Your task to perform on an android device: Search for "dell xps" on amazon.com, select the first entry, and add it to the cart. Image 0: 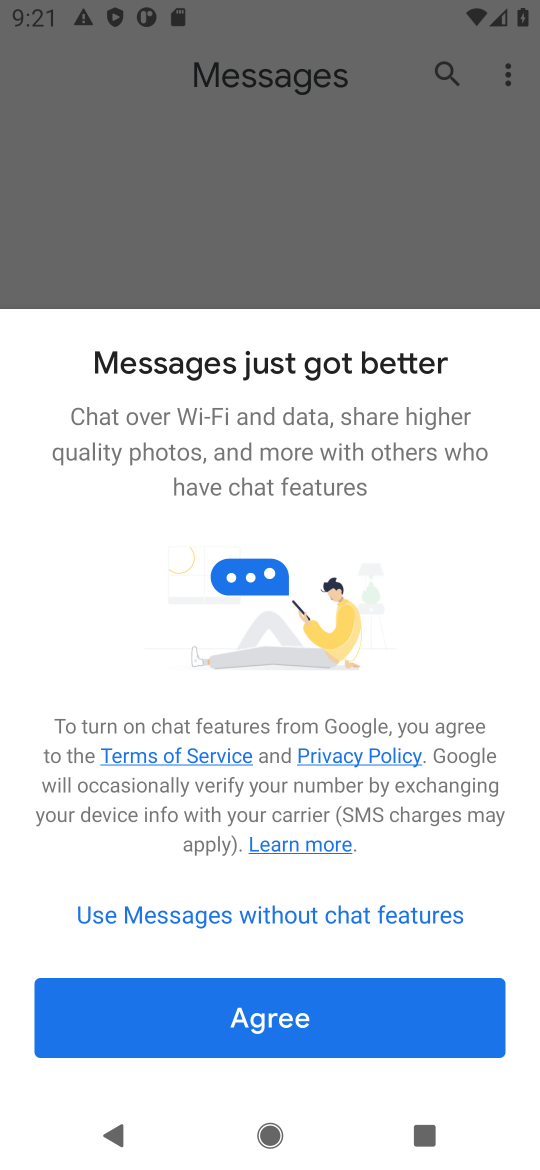
Step 0: press home button
Your task to perform on an android device: Search for "dell xps" on amazon.com, select the first entry, and add it to the cart. Image 1: 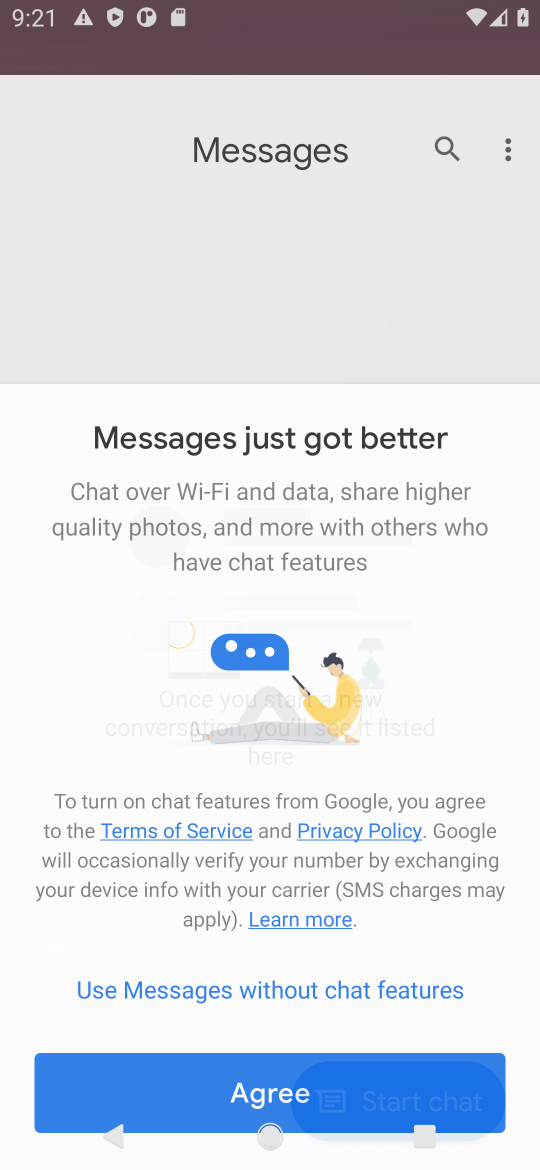
Step 1: press home button
Your task to perform on an android device: Search for "dell xps" on amazon.com, select the first entry, and add it to the cart. Image 2: 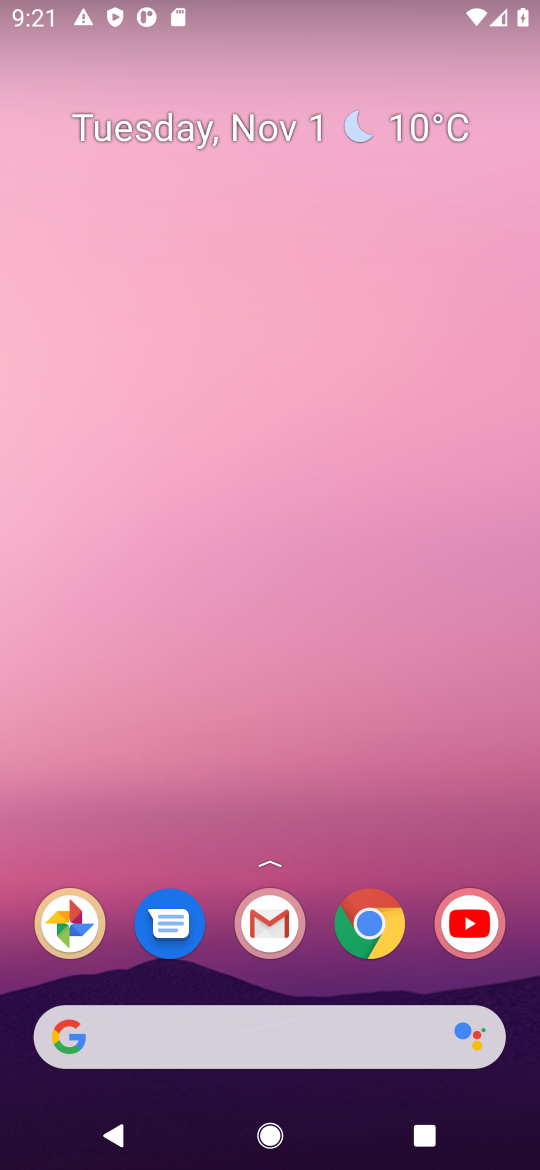
Step 2: drag from (301, 807) to (228, 33)
Your task to perform on an android device: Search for "dell xps" on amazon.com, select the first entry, and add it to the cart. Image 3: 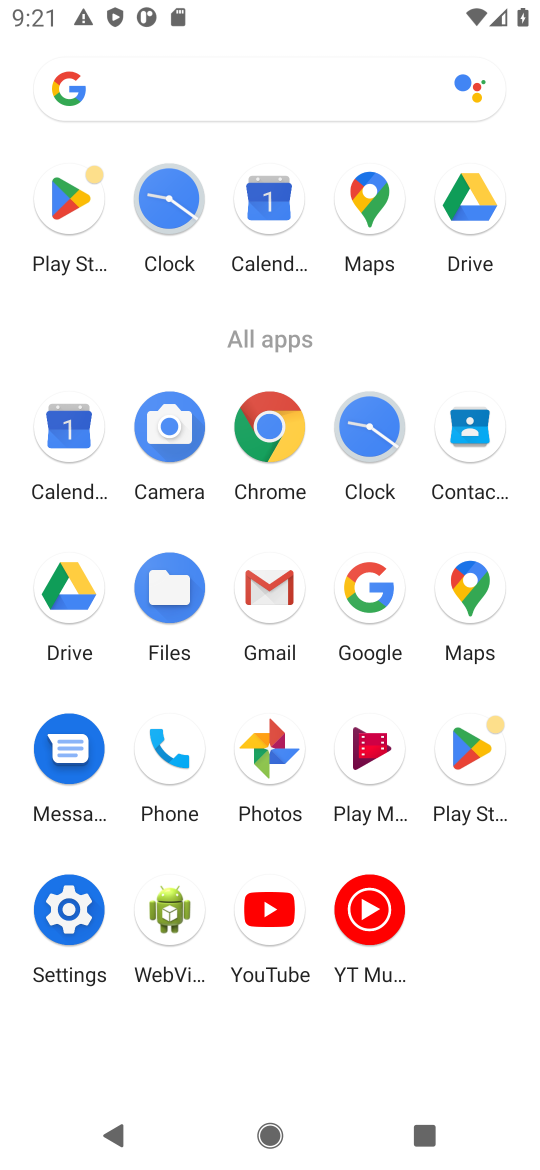
Step 3: click (265, 412)
Your task to perform on an android device: Search for "dell xps" on amazon.com, select the first entry, and add it to the cart. Image 4: 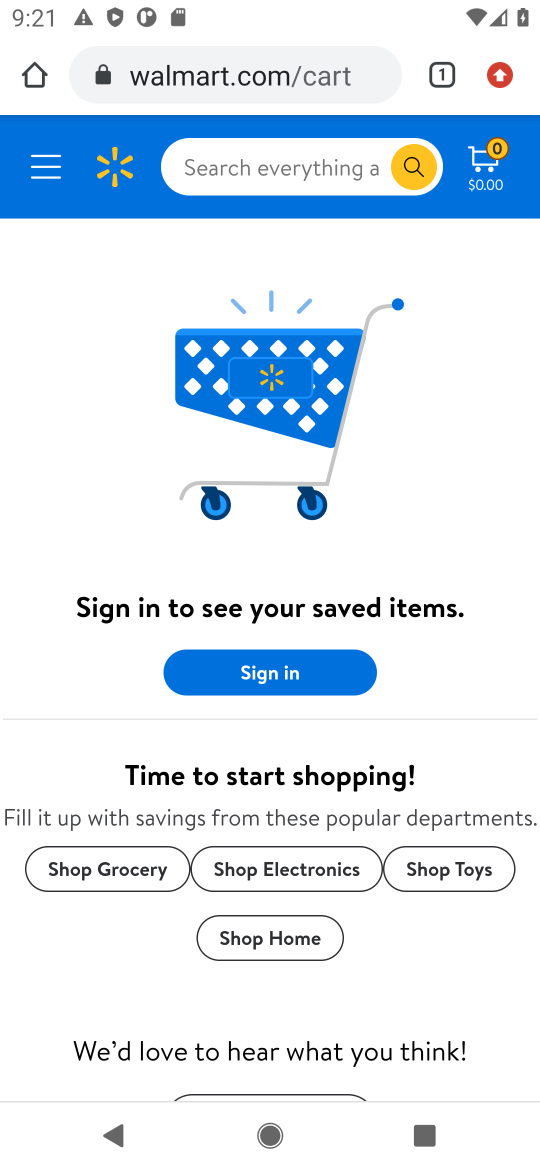
Step 4: click (278, 72)
Your task to perform on an android device: Search for "dell xps" on amazon.com, select the first entry, and add it to the cart. Image 5: 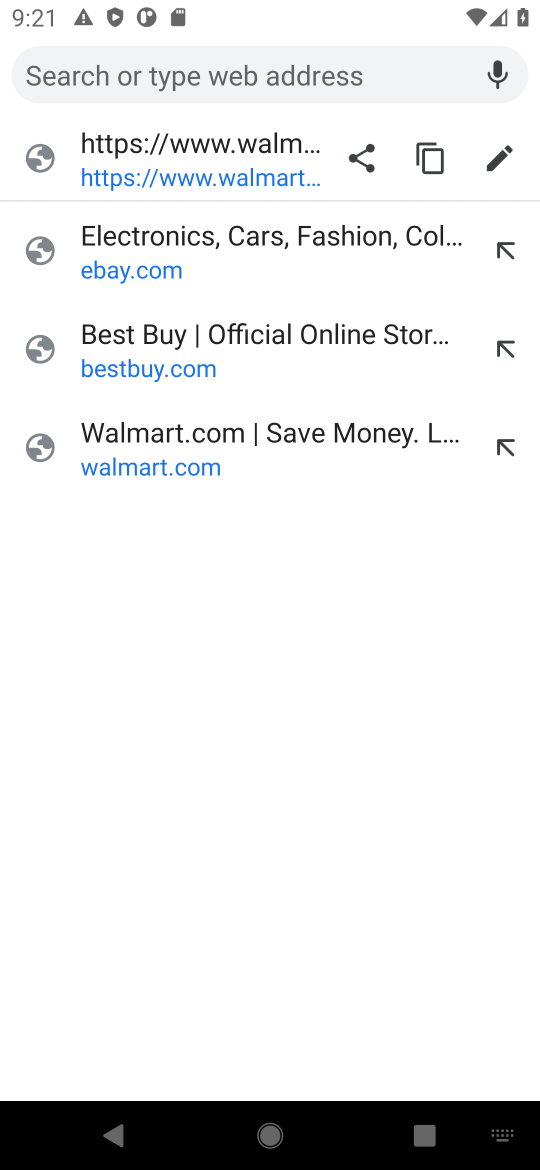
Step 5: type "amazon.com"
Your task to perform on an android device: Search for "dell xps" on amazon.com, select the first entry, and add it to the cart. Image 6: 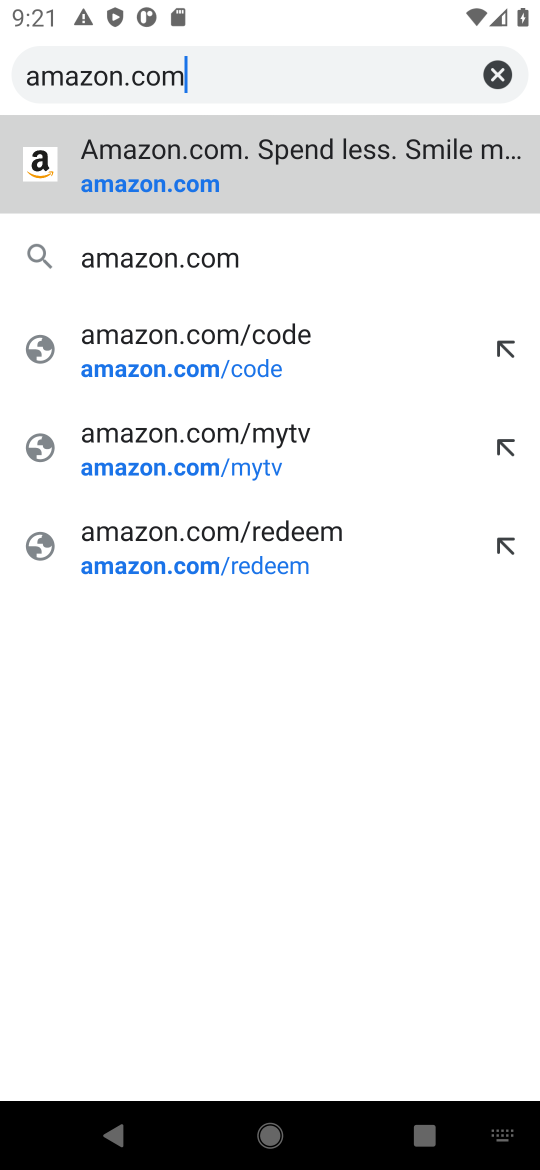
Step 6: press enter
Your task to perform on an android device: Search for "dell xps" on amazon.com, select the first entry, and add it to the cart. Image 7: 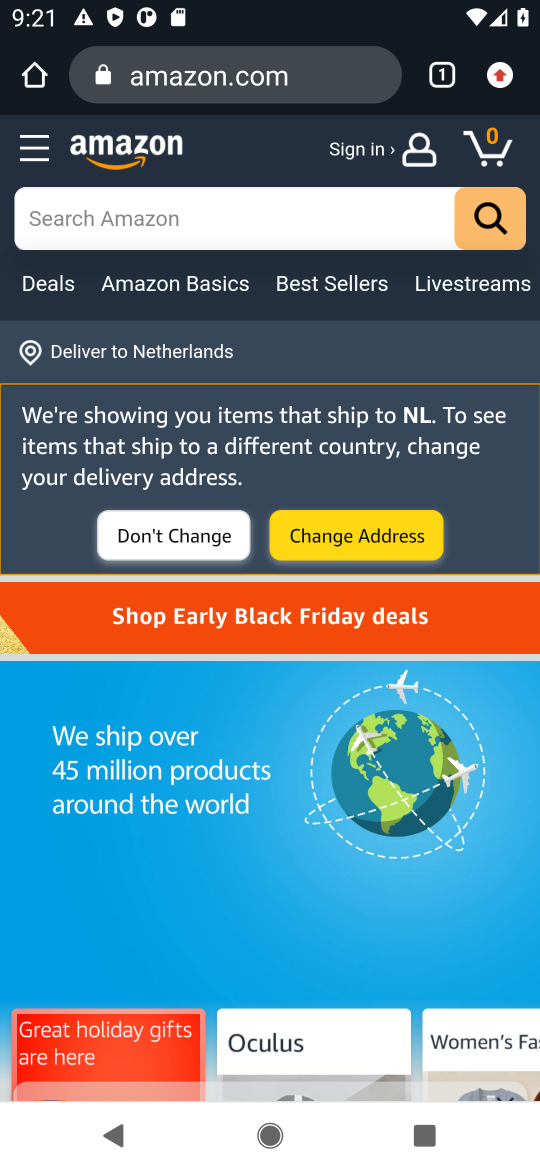
Step 7: click (284, 220)
Your task to perform on an android device: Search for "dell xps" on amazon.com, select the first entry, and add it to the cart. Image 8: 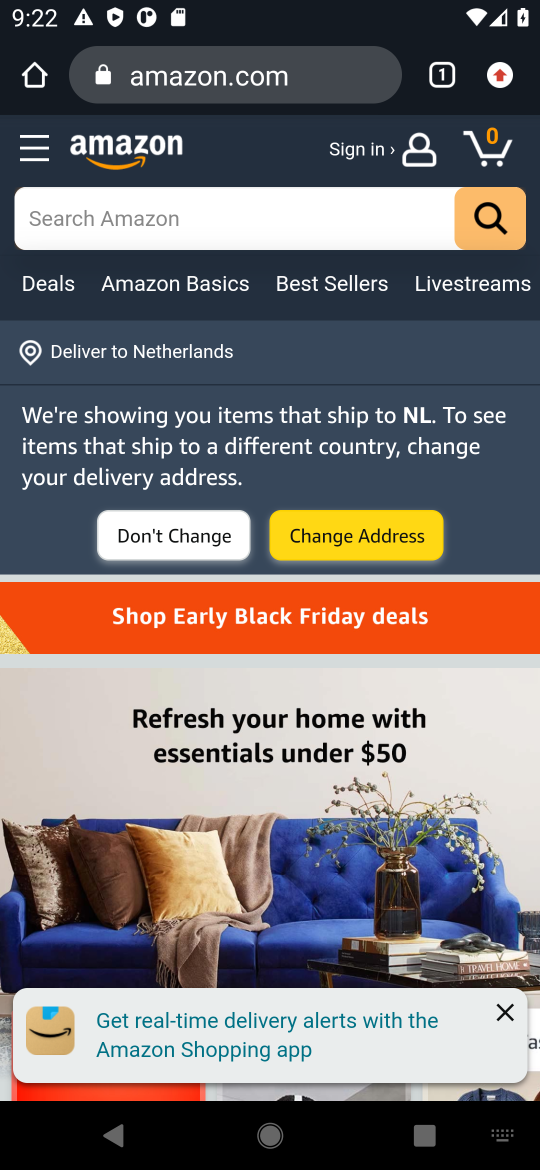
Step 8: type "dell xps"
Your task to perform on an android device: Search for "dell xps" on amazon.com, select the first entry, and add it to the cart. Image 9: 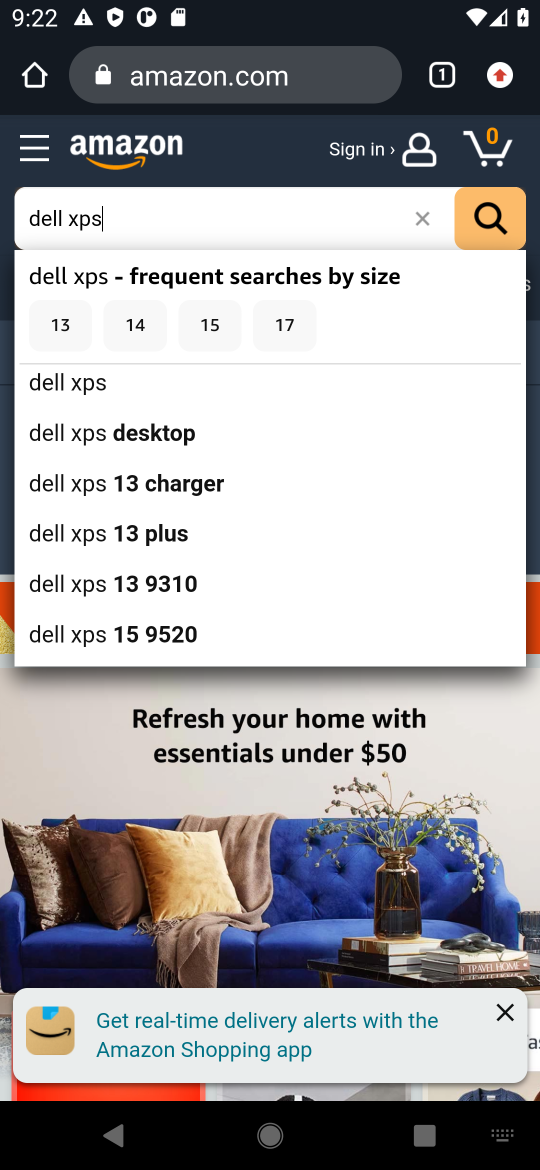
Step 9: press enter
Your task to perform on an android device: Search for "dell xps" on amazon.com, select the first entry, and add it to the cart. Image 10: 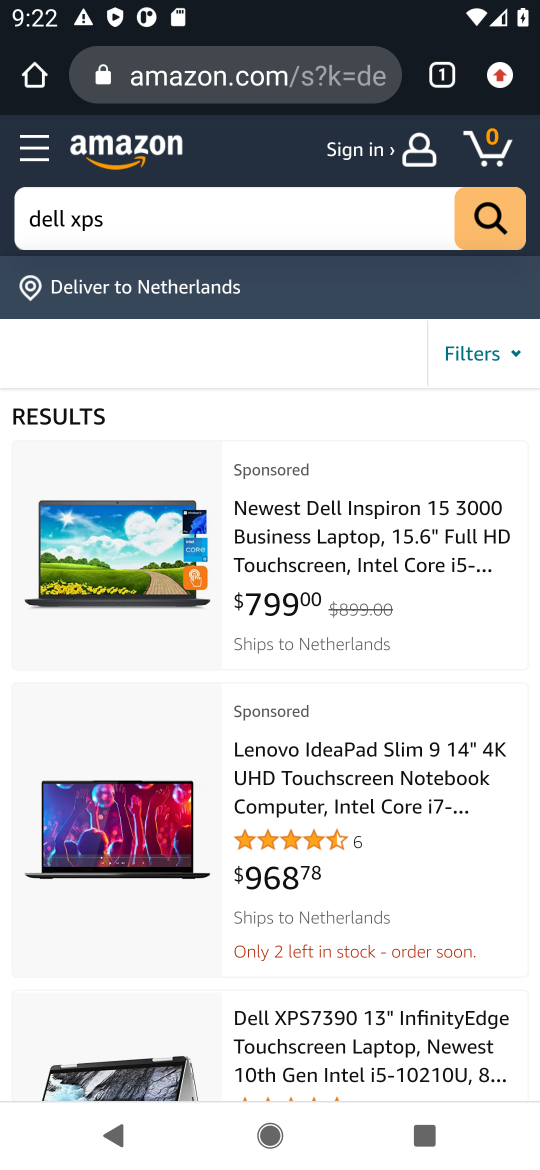
Step 10: drag from (164, 899) to (216, 512)
Your task to perform on an android device: Search for "dell xps" on amazon.com, select the first entry, and add it to the cart. Image 11: 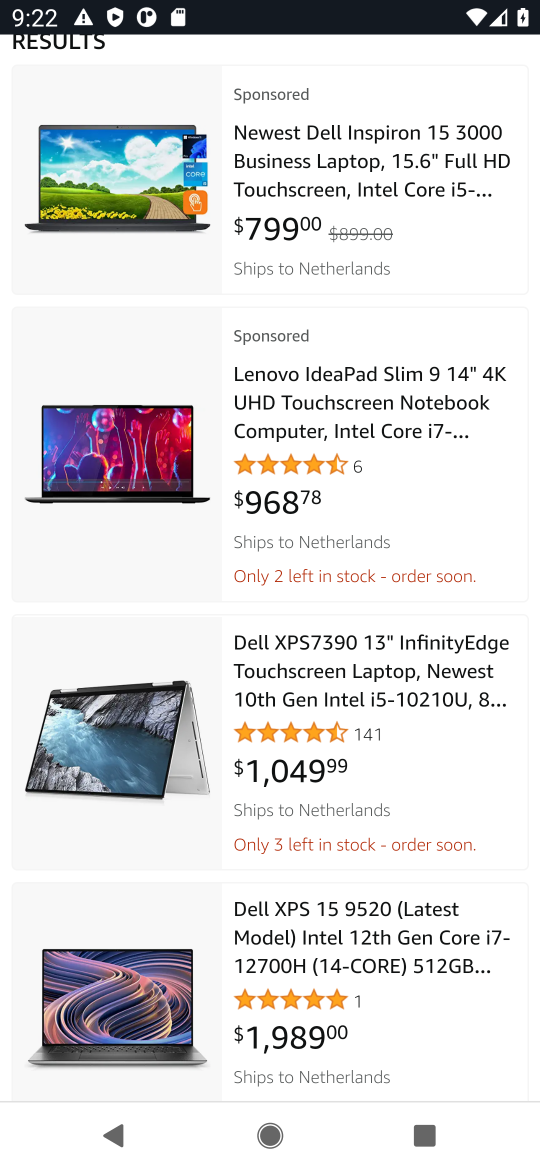
Step 11: click (309, 695)
Your task to perform on an android device: Search for "dell xps" on amazon.com, select the first entry, and add it to the cart. Image 12: 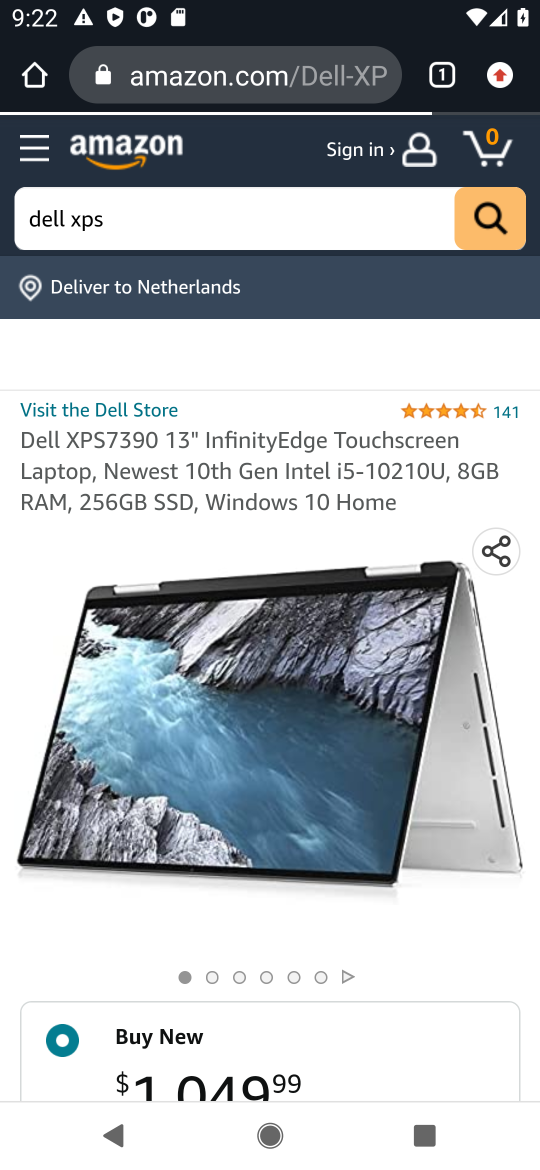
Step 12: drag from (171, 808) to (247, 248)
Your task to perform on an android device: Search for "dell xps" on amazon.com, select the first entry, and add it to the cart. Image 13: 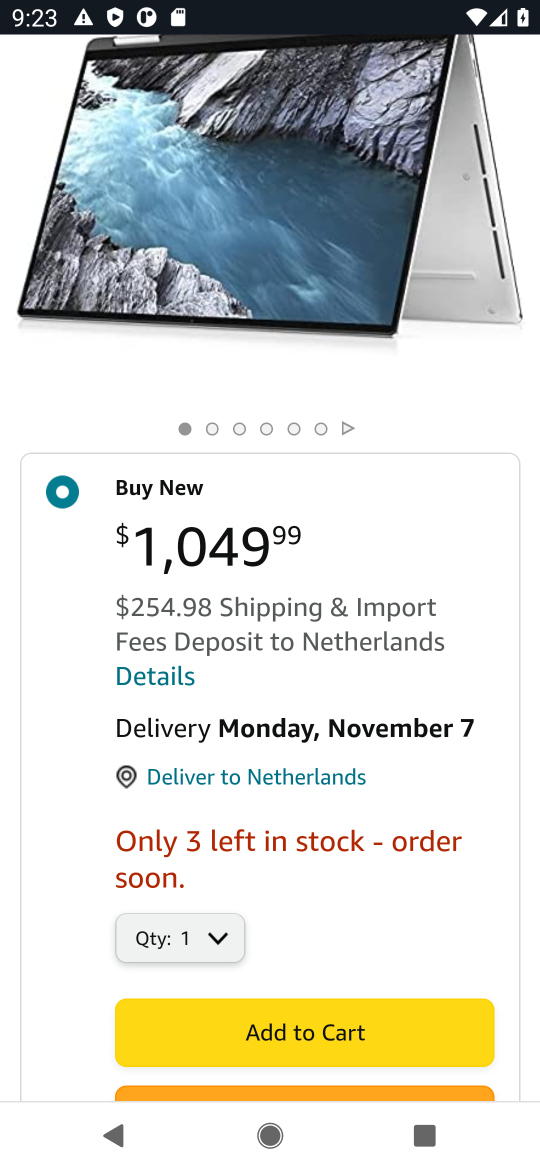
Step 13: click (343, 1030)
Your task to perform on an android device: Search for "dell xps" on amazon.com, select the first entry, and add it to the cart. Image 14: 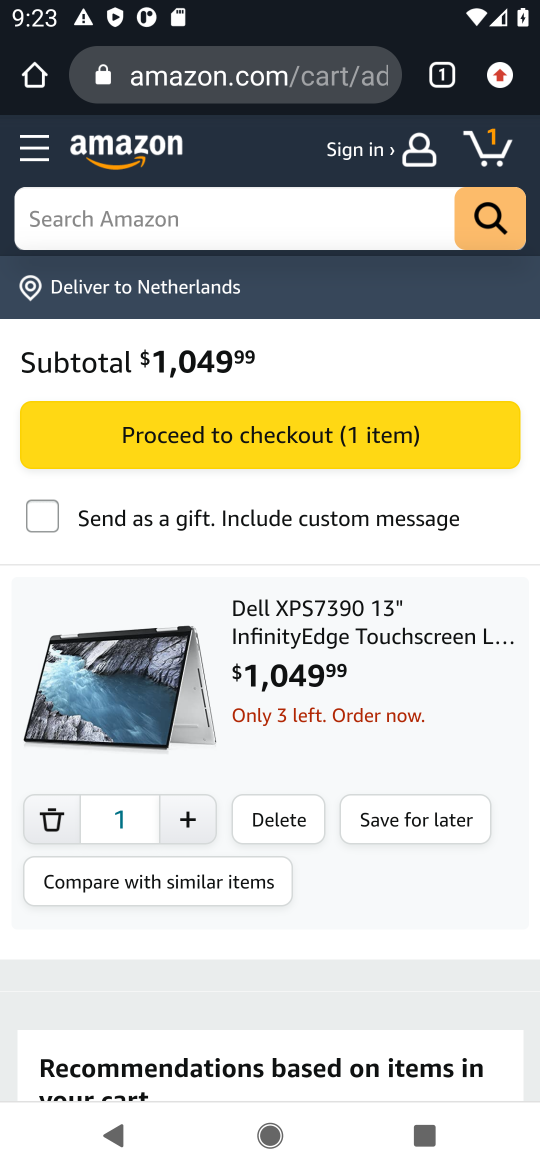
Step 14: task complete